Your task to perform on an android device: set an alarm Image 0: 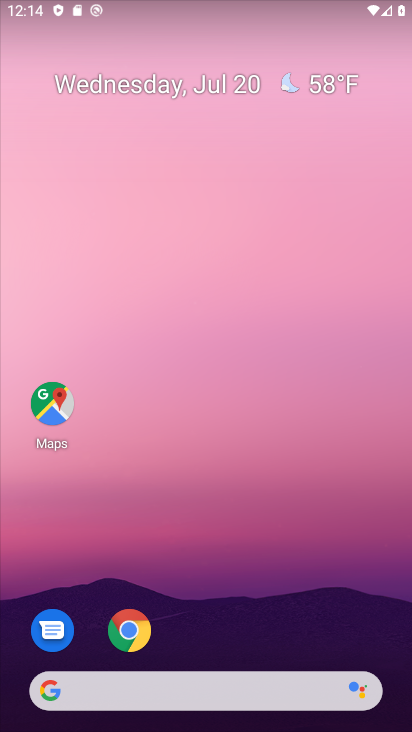
Step 0: drag from (197, 699) to (308, 102)
Your task to perform on an android device: set an alarm Image 1: 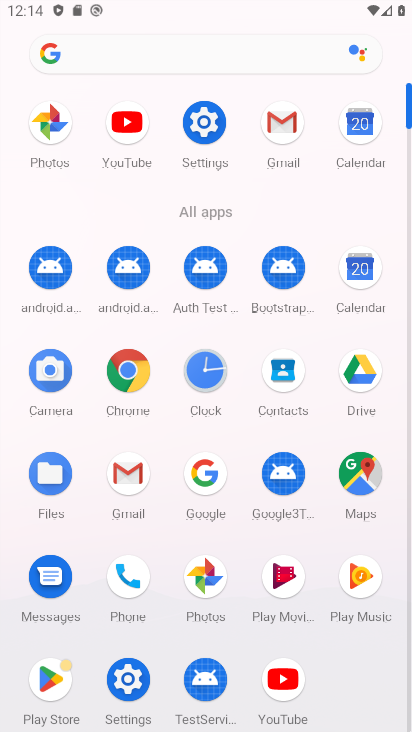
Step 1: click (208, 373)
Your task to perform on an android device: set an alarm Image 2: 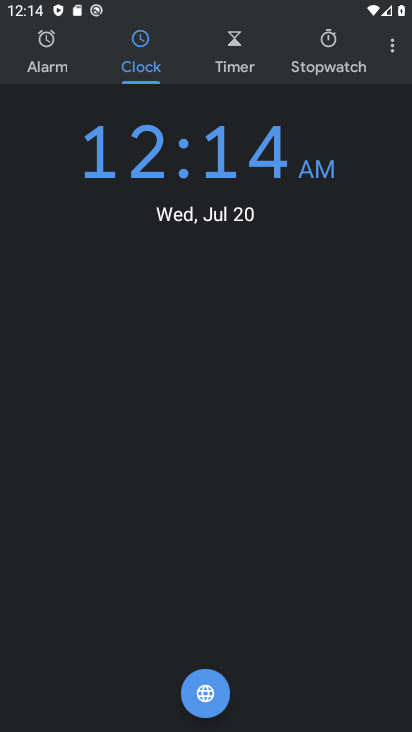
Step 2: click (51, 55)
Your task to perform on an android device: set an alarm Image 3: 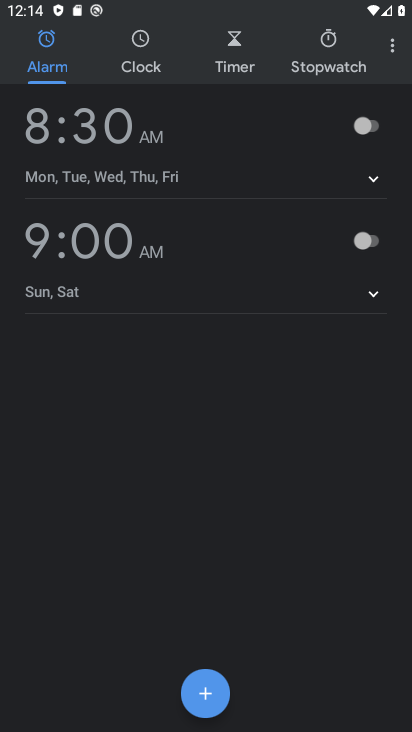
Step 3: click (371, 122)
Your task to perform on an android device: set an alarm Image 4: 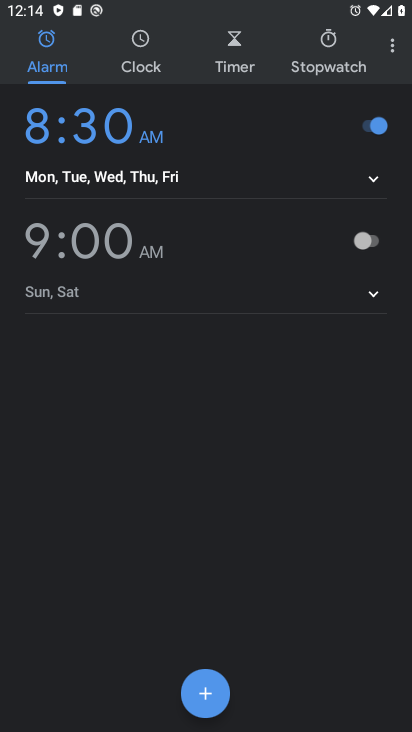
Step 4: task complete